Your task to perform on an android device: Open Yahoo.com Image 0: 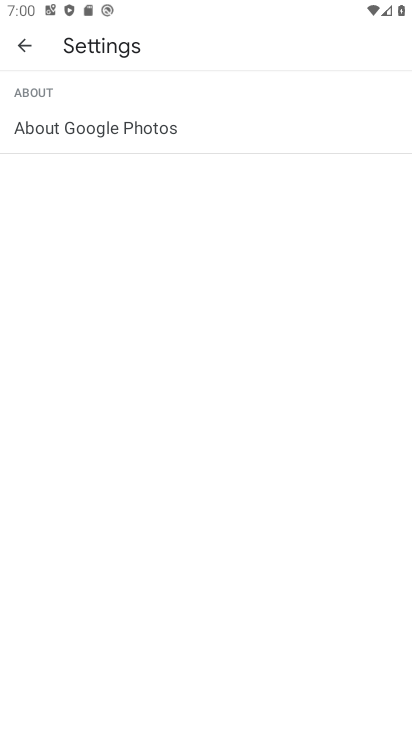
Step 0: press home button
Your task to perform on an android device: Open Yahoo.com Image 1: 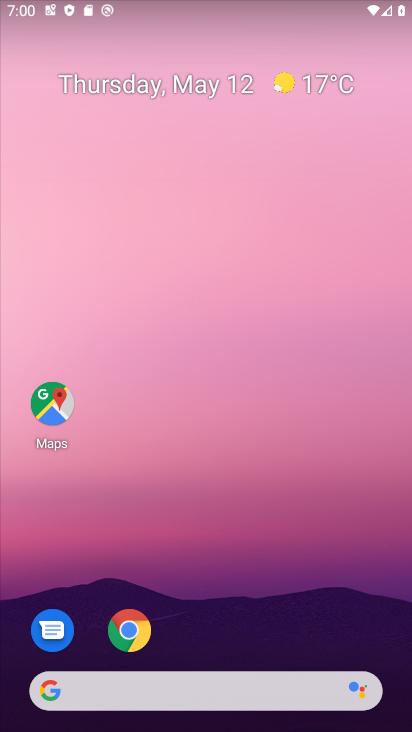
Step 1: drag from (346, 630) to (221, 170)
Your task to perform on an android device: Open Yahoo.com Image 2: 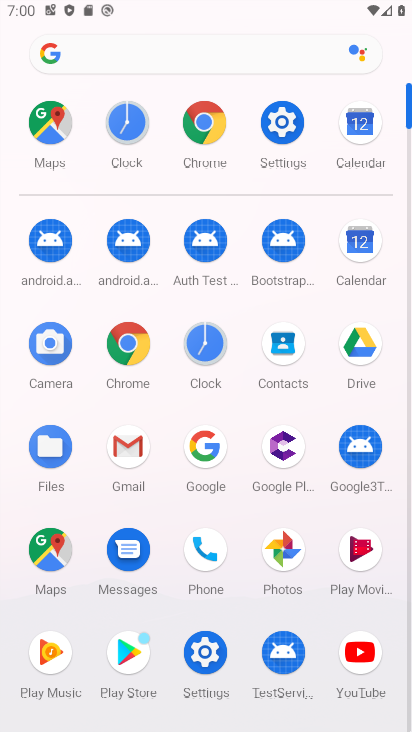
Step 2: click (114, 347)
Your task to perform on an android device: Open Yahoo.com Image 3: 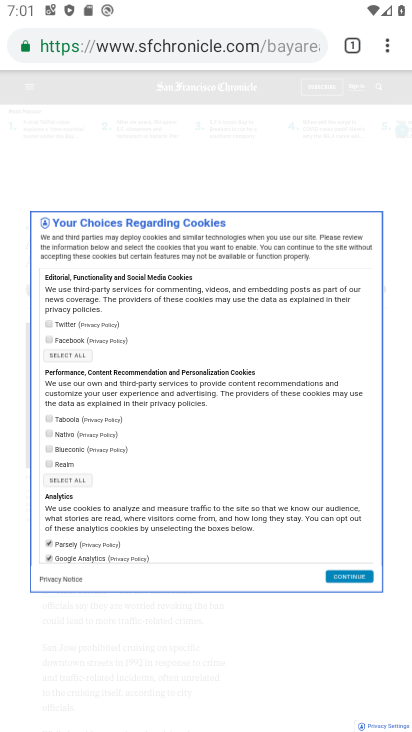
Step 3: press back button
Your task to perform on an android device: Open Yahoo.com Image 4: 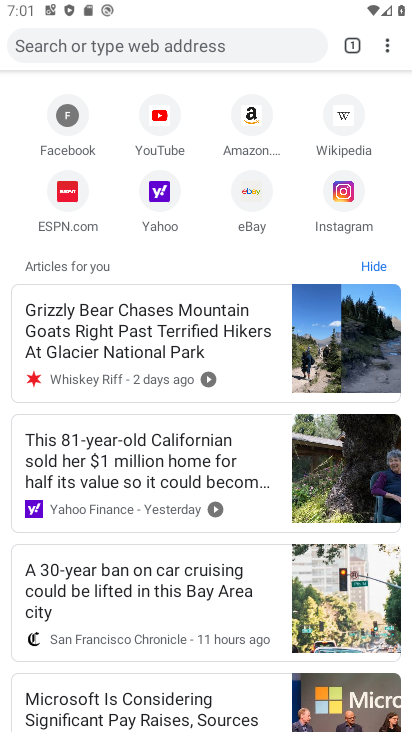
Step 4: click (171, 197)
Your task to perform on an android device: Open Yahoo.com Image 5: 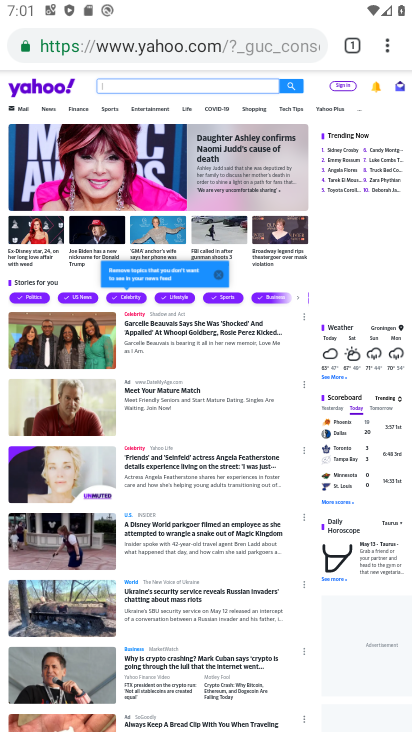
Step 5: task complete